Your task to perform on an android device: change the clock display to analog Image 0: 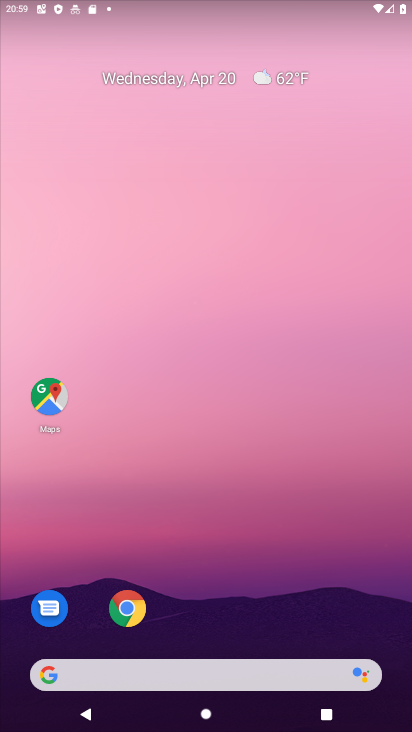
Step 0: drag from (300, 589) to (274, 37)
Your task to perform on an android device: change the clock display to analog Image 1: 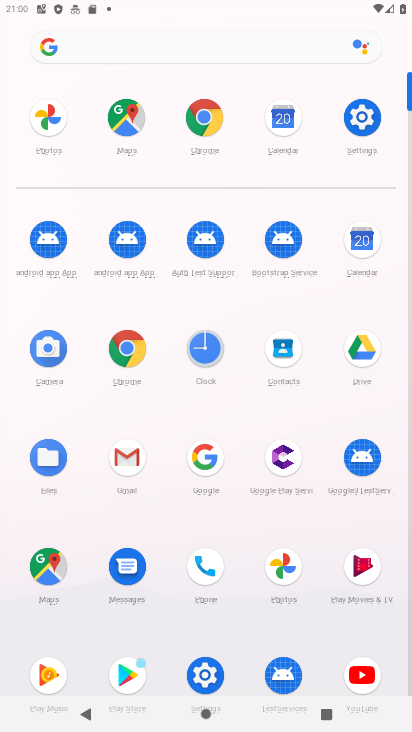
Step 1: click (212, 348)
Your task to perform on an android device: change the clock display to analog Image 2: 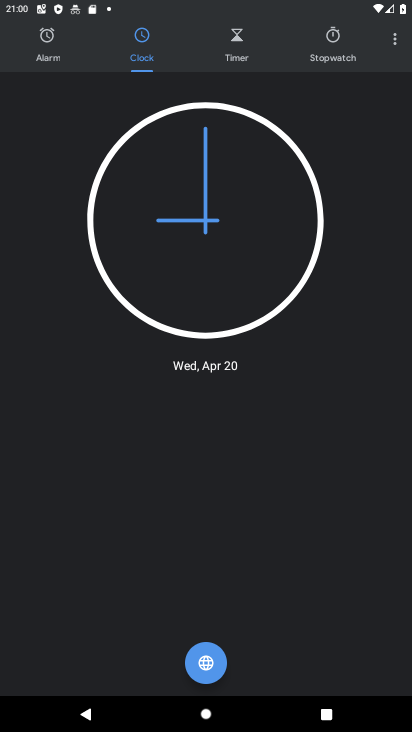
Step 2: click (347, 46)
Your task to perform on an android device: change the clock display to analog Image 3: 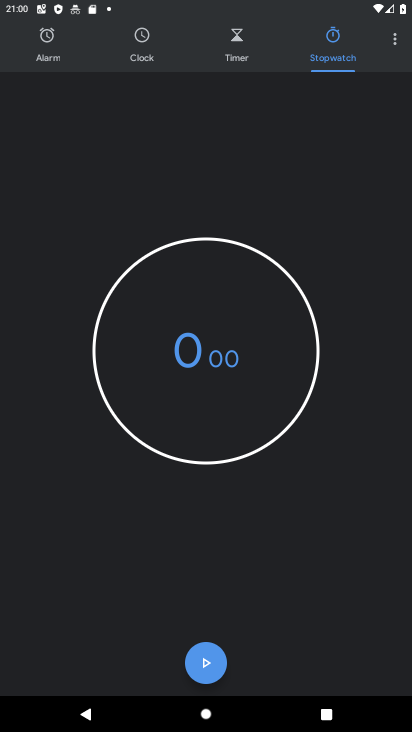
Step 3: click (392, 27)
Your task to perform on an android device: change the clock display to analog Image 4: 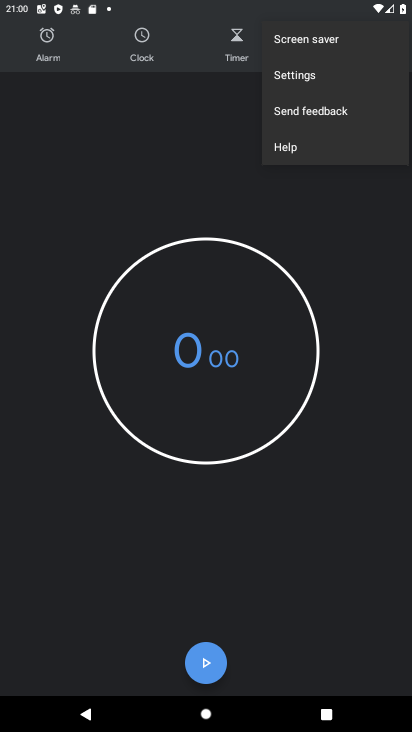
Step 4: click (316, 70)
Your task to perform on an android device: change the clock display to analog Image 5: 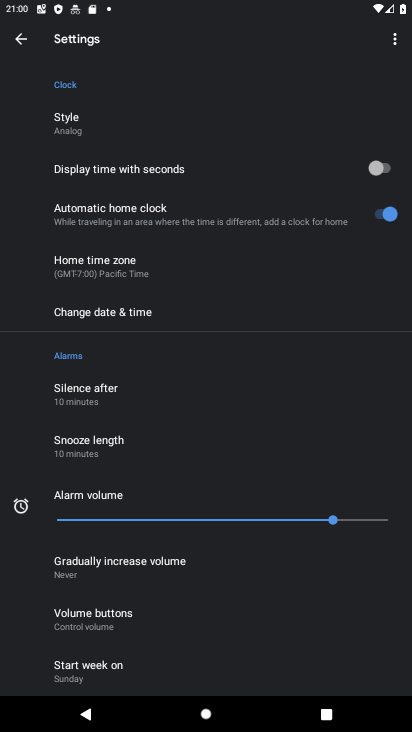
Step 5: click (89, 134)
Your task to perform on an android device: change the clock display to analog Image 6: 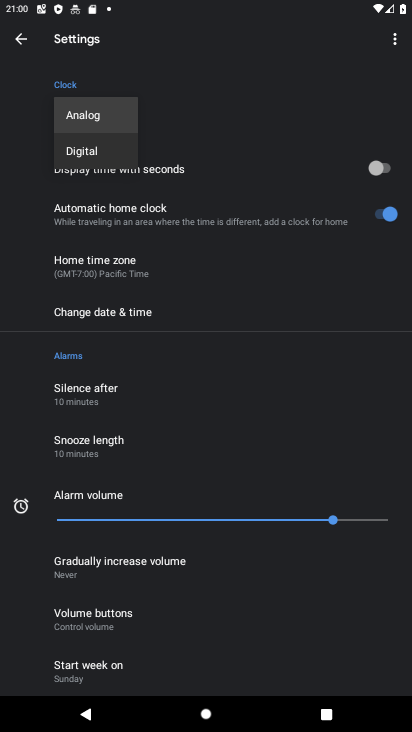
Step 6: click (107, 148)
Your task to perform on an android device: change the clock display to analog Image 7: 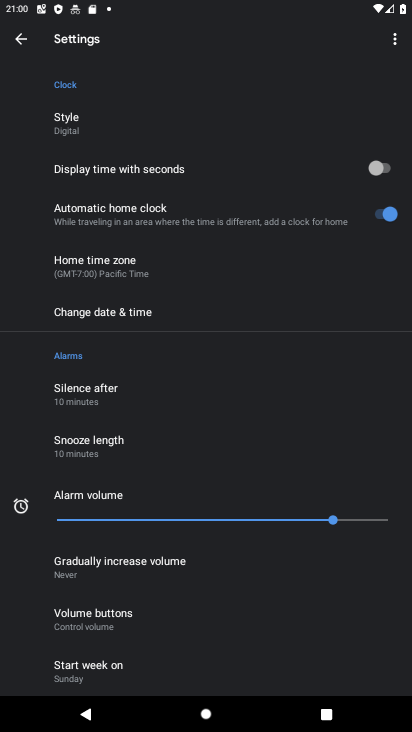
Step 7: task complete